Your task to perform on an android device: toggle location history Image 0: 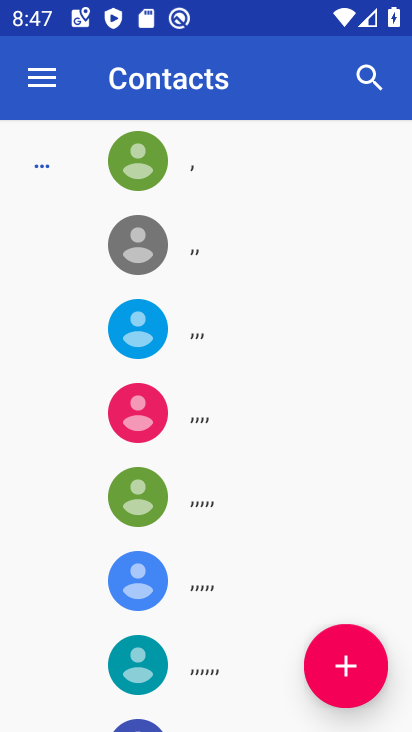
Step 0: press home button
Your task to perform on an android device: toggle location history Image 1: 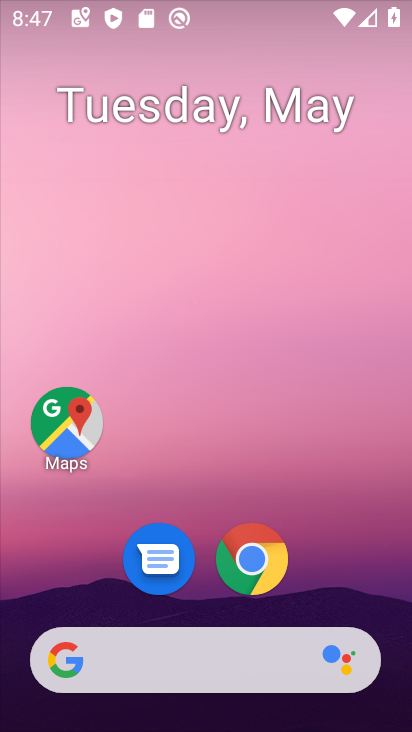
Step 1: drag from (390, 560) to (364, 125)
Your task to perform on an android device: toggle location history Image 2: 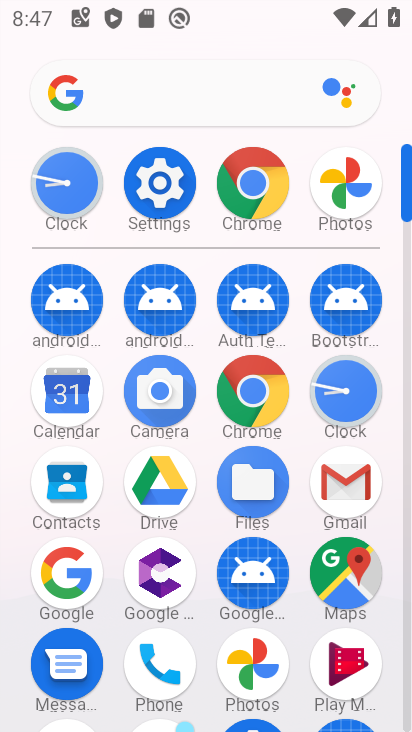
Step 2: click (166, 159)
Your task to perform on an android device: toggle location history Image 3: 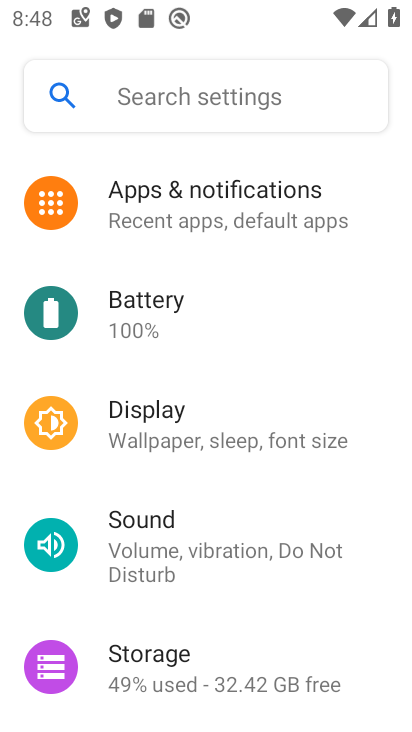
Step 3: drag from (170, 395) to (189, 115)
Your task to perform on an android device: toggle location history Image 4: 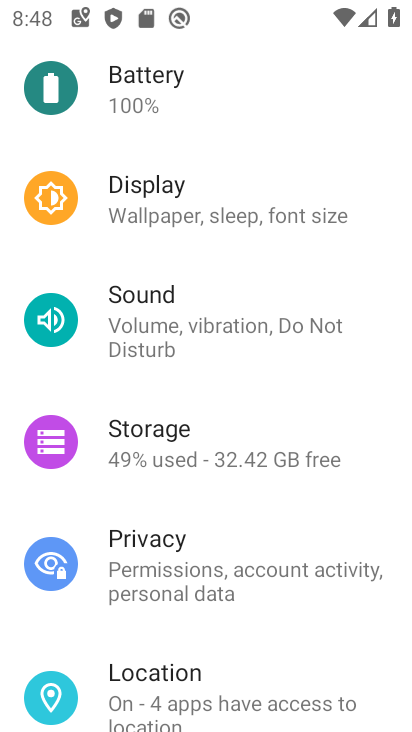
Step 4: drag from (167, 589) to (234, 180)
Your task to perform on an android device: toggle location history Image 5: 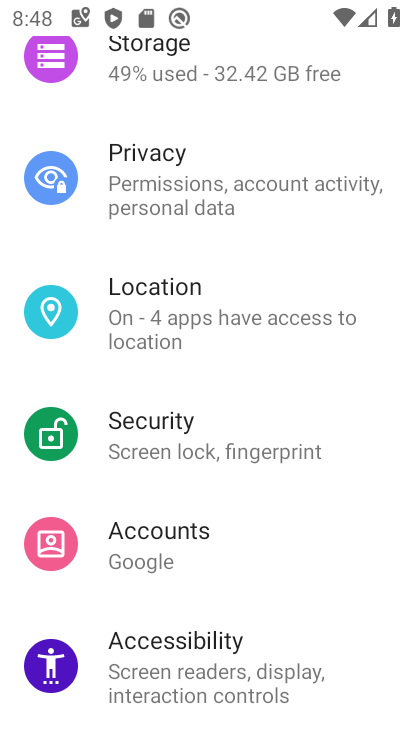
Step 5: click (154, 321)
Your task to perform on an android device: toggle location history Image 6: 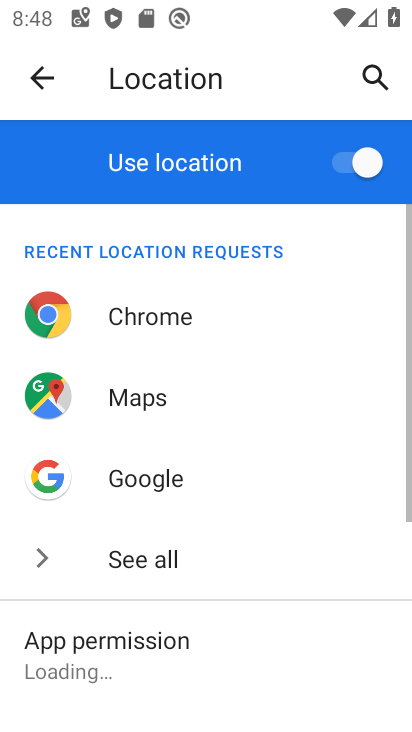
Step 6: drag from (133, 537) to (195, 152)
Your task to perform on an android device: toggle location history Image 7: 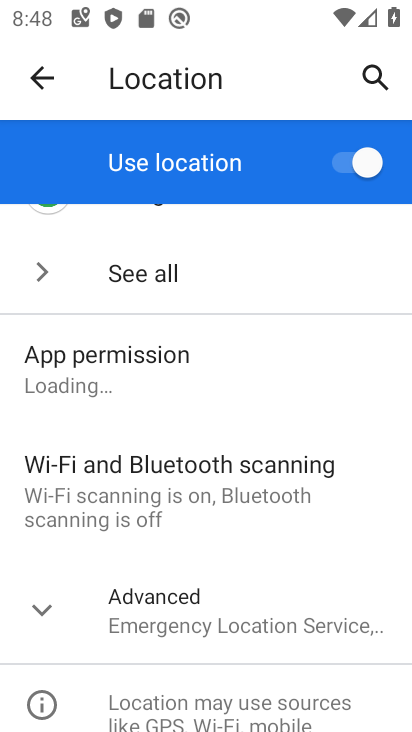
Step 7: click (152, 191)
Your task to perform on an android device: toggle location history Image 8: 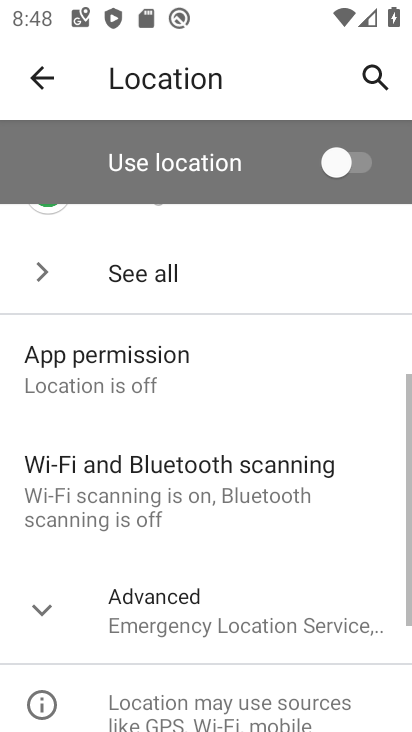
Step 8: click (119, 590)
Your task to perform on an android device: toggle location history Image 9: 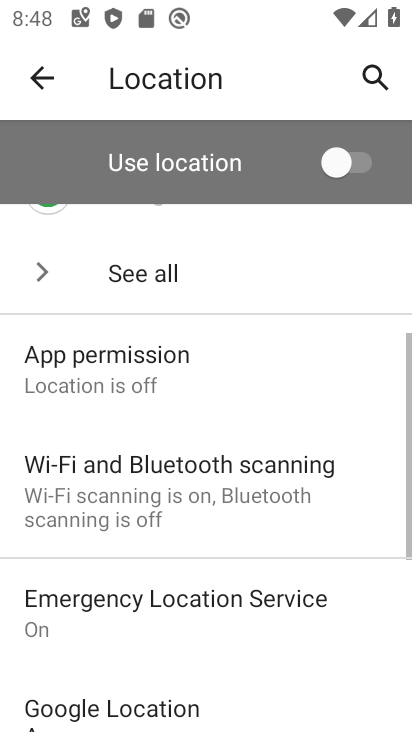
Step 9: drag from (122, 616) to (120, 313)
Your task to perform on an android device: toggle location history Image 10: 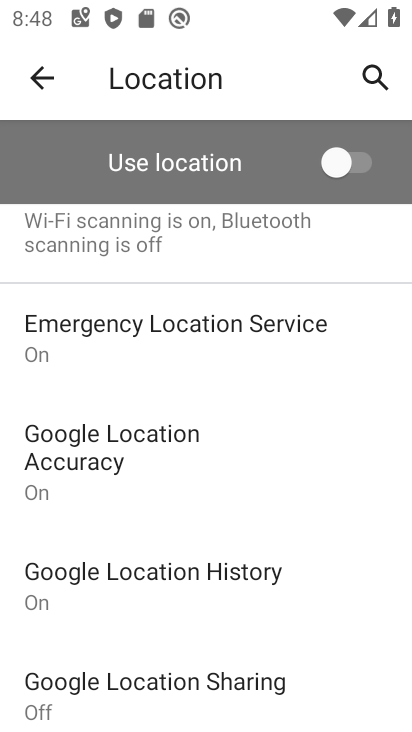
Step 10: click (166, 597)
Your task to perform on an android device: toggle location history Image 11: 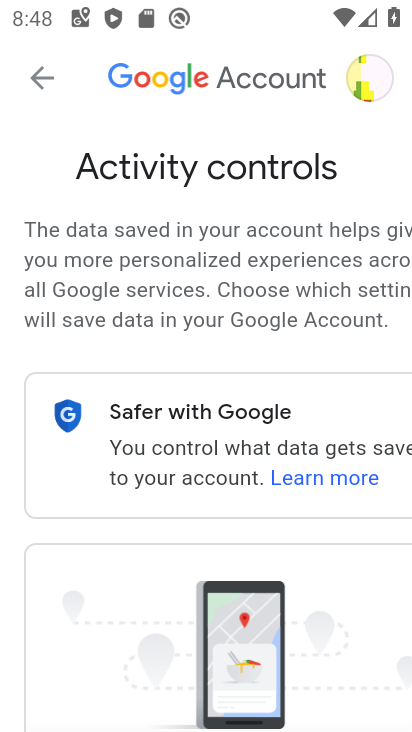
Step 11: drag from (153, 590) to (126, 225)
Your task to perform on an android device: toggle location history Image 12: 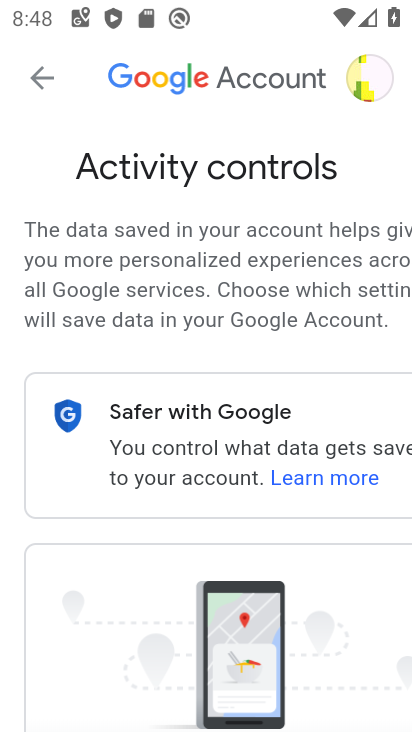
Step 12: drag from (164, 605) to (180, 251)
Your task to perform on an android device: toggle location history Image 13: 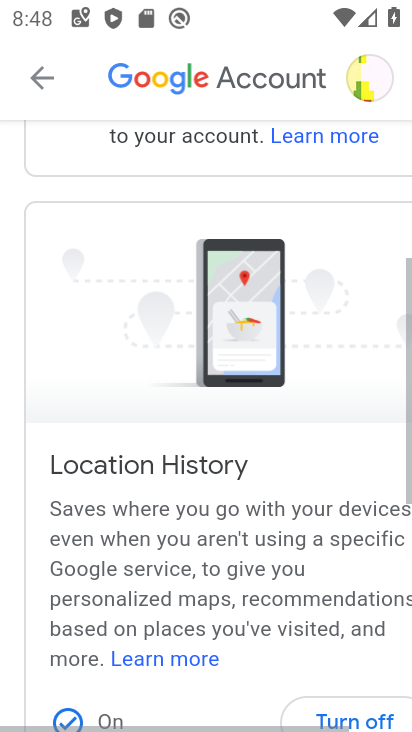
Step 13: drag from (164, 570) to (195, 269)
Your task to perform on an android device: toggle location history Image 14: 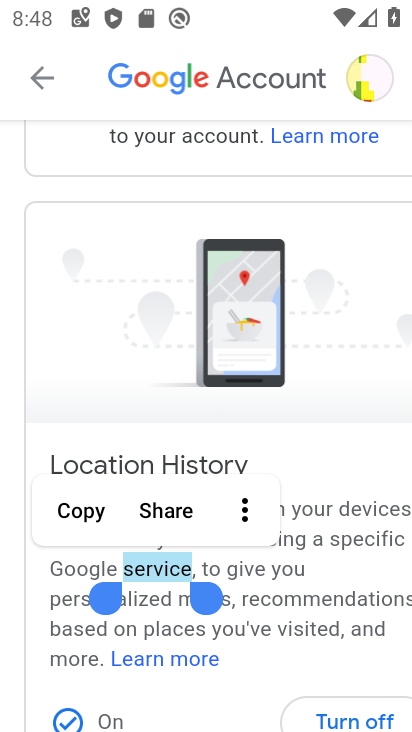
Step 14: drag from (294, 606) to (240, 350)
Your task to perform on an android device: toggle location history Image 15: 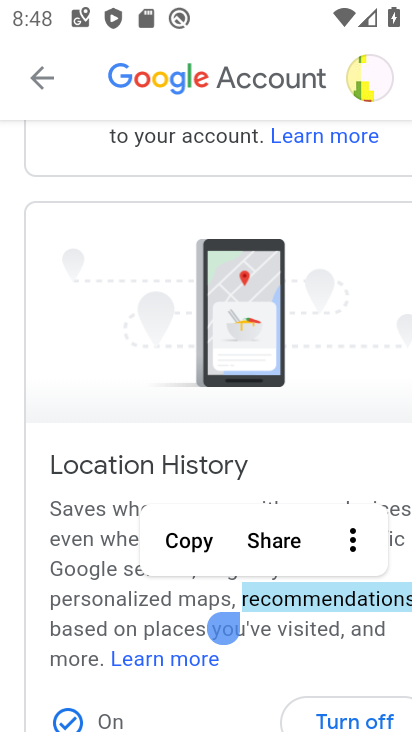
Step 15: click (280, 554)
Your task to perform on an android device: toggle location history Image 16: 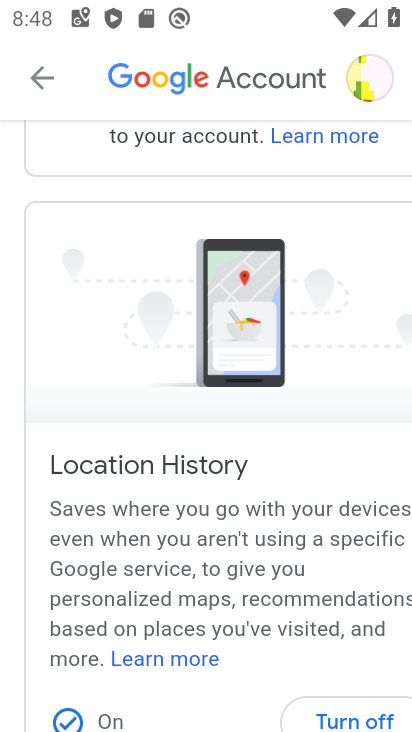
Step 16: drag from (229, 637) to (184, 306)
Your task to perform on an android device: toggle location history Image 17: 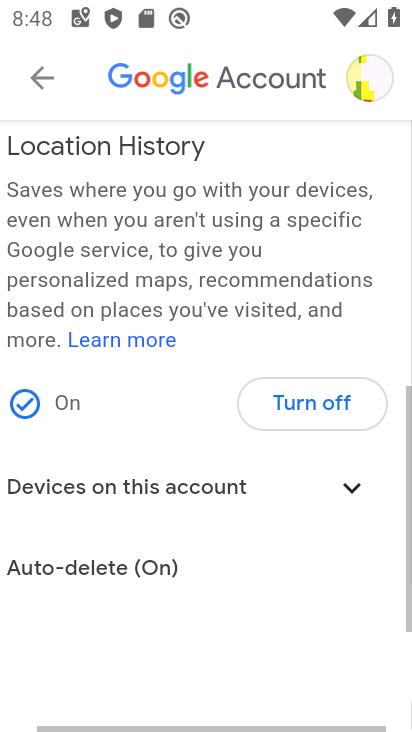
Step 17: drag from (181, 596) to (107, 230)
Your task to perform on an android device: toggle location history Image 18: 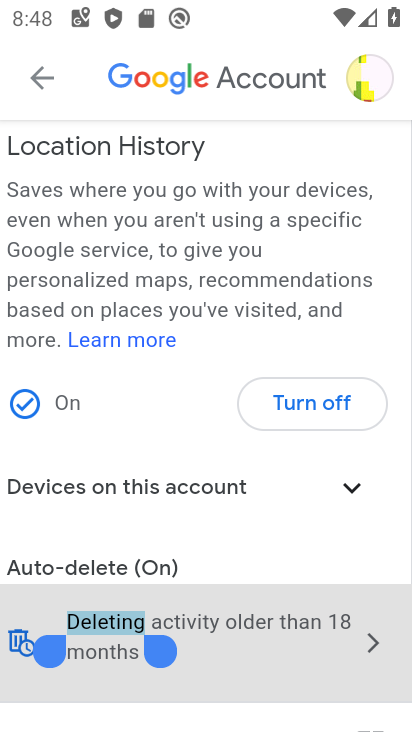
Step 18: click (280, 410)
Your task to perform on an android device: toggle location history Image 19: 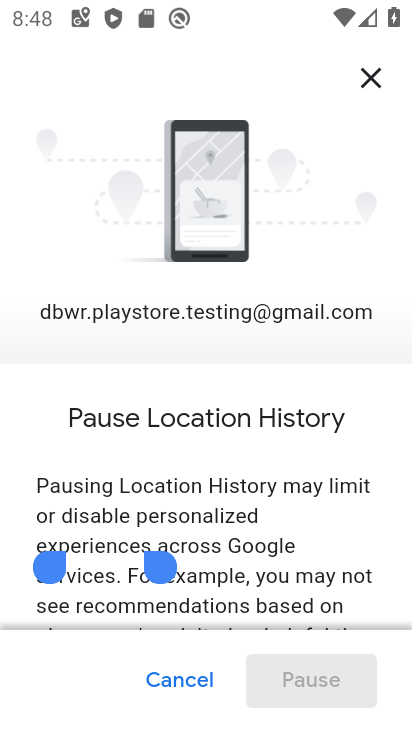
Step 19: drag from (304, 523) to (244, 123)
Your task to perform on an android device: toggle location history Image 20: 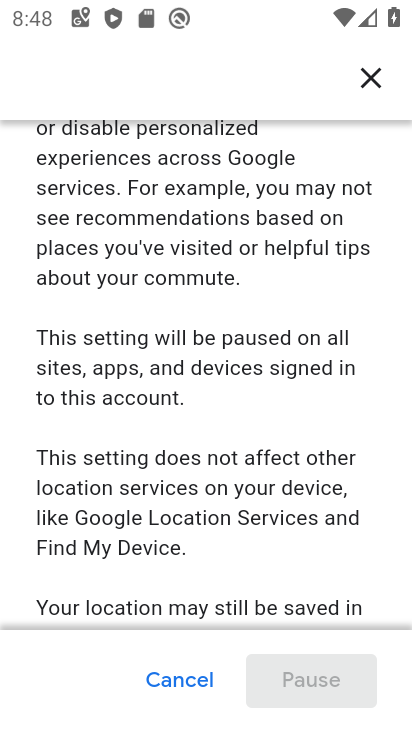
Step 20: drag from (240, 558) to (208, 164)
Your task to perform on an android device: toggle location history Image 21: 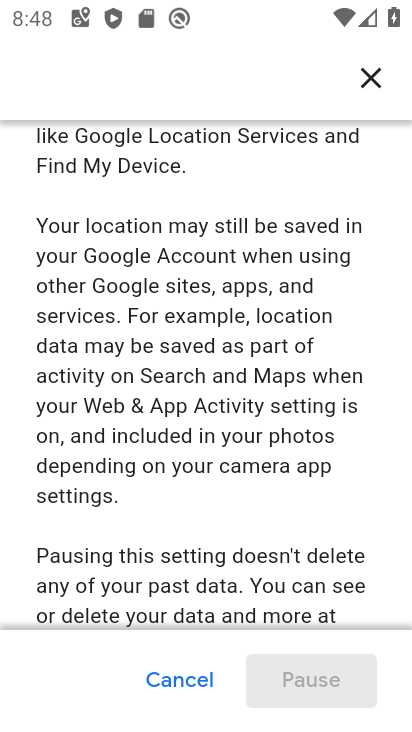
Step 21: drag from (198, 541) to (183, 202)
Your task to perform on an android device: toggle location history Image 22: 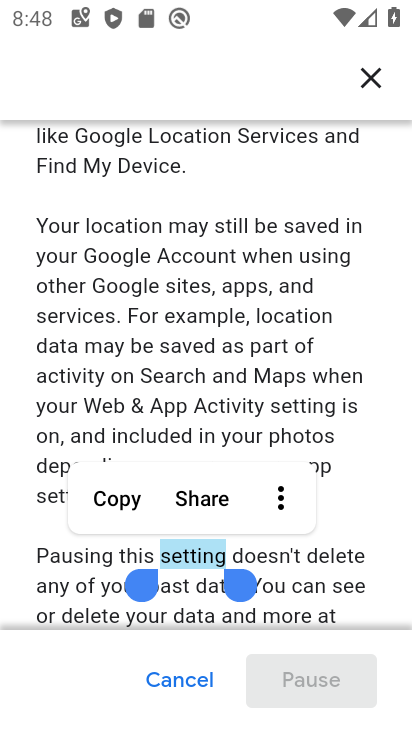
Step 22: drag from (261, 559) to (204, 193)
Your task to perform on an android device: toggle location history Image 23: 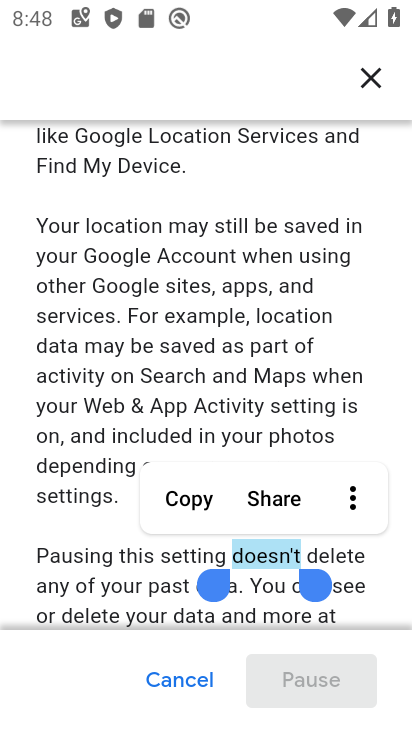
Step 23: click (303, 397)
Your task to perform on an android device: toggle location history Image 24: 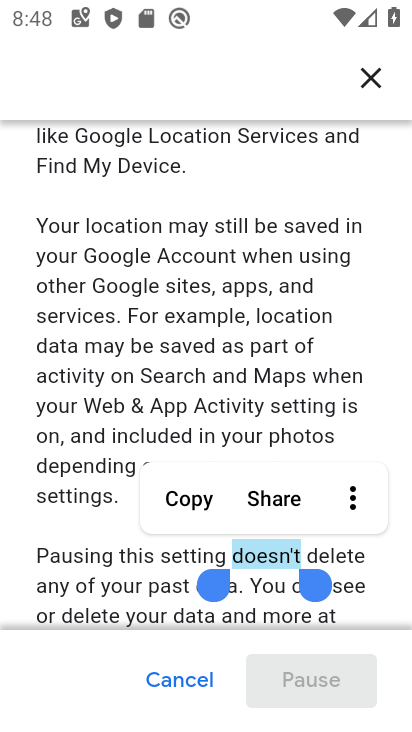
Step 24: drag from (364, 561) to (340, 41)
Your task to perform on an android device: toggle location history Image 25: 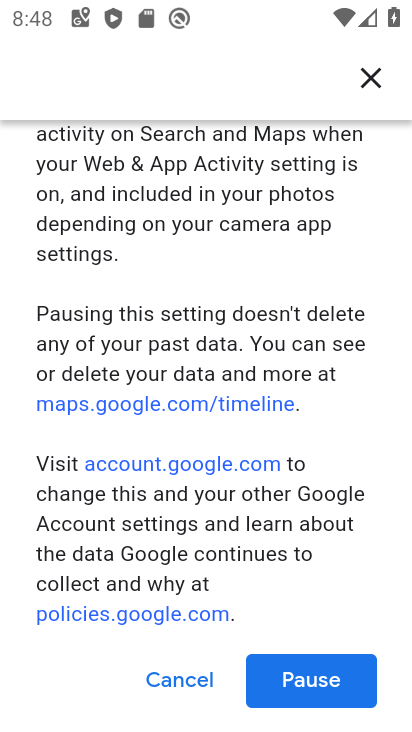
Step 25: drag from (177, 578) to (237, 237)
Your task to perform on an android device: toggle location history Image 26: 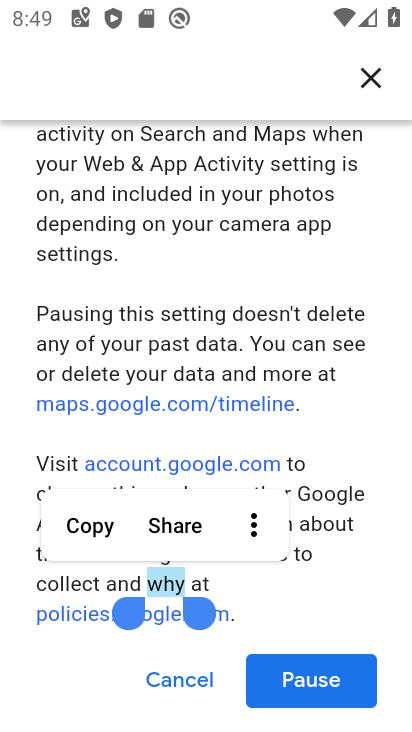
Step 26: click (286, 680)
Your task to perform on an android device: toggle location history Image 27: 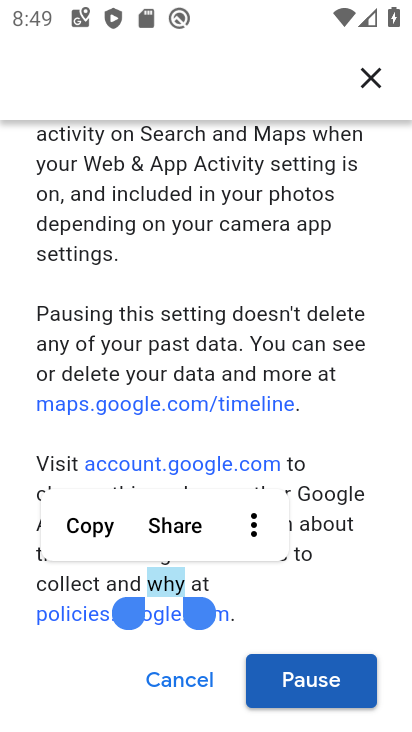
Step 27: click (264, 709)
Your task to perform on an android device: toggle location history Image 28: 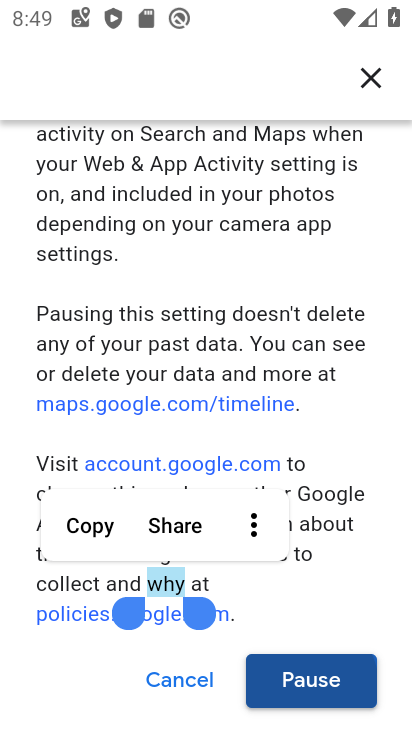
Step 28: click (275, 678)
Your task to perform on an android device: toggle location history Image 29: 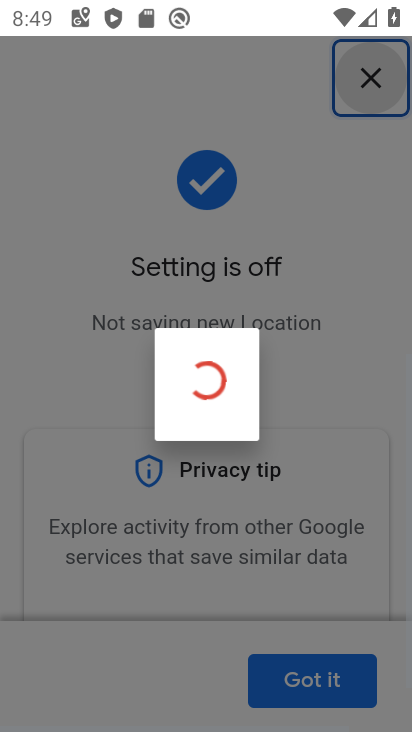
Step 29: click (337, 668)
Your task to perform on an android device: toggle location history Image 30: 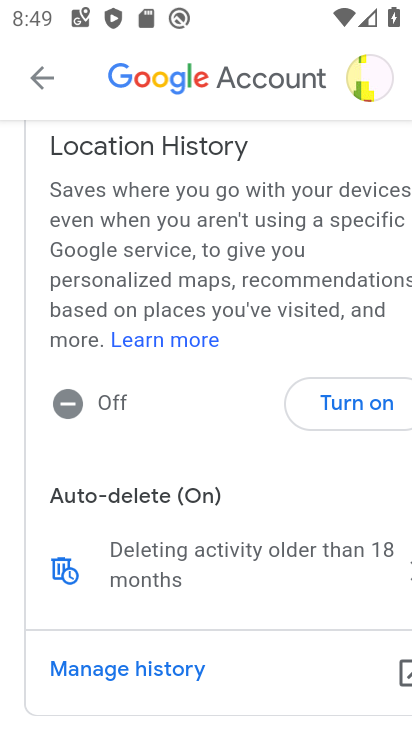
Step 30: task complete